Your task to perform on an android device: empty trash in google photos Image 0: 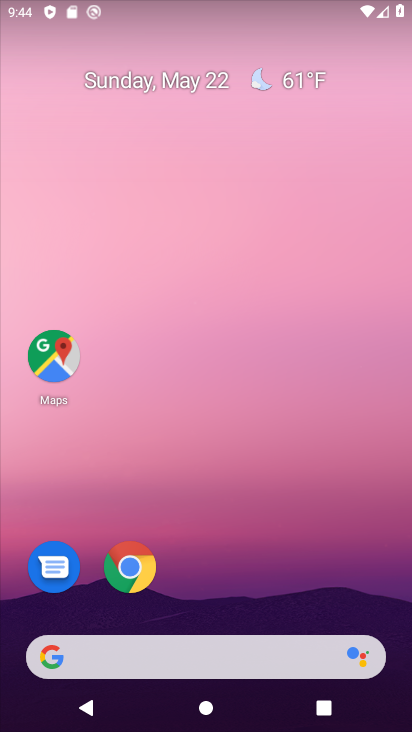
Step 0: drag from (217, 617) to (129, 53)
Your task to perform on an android device: empty trash in google photos Image 1: 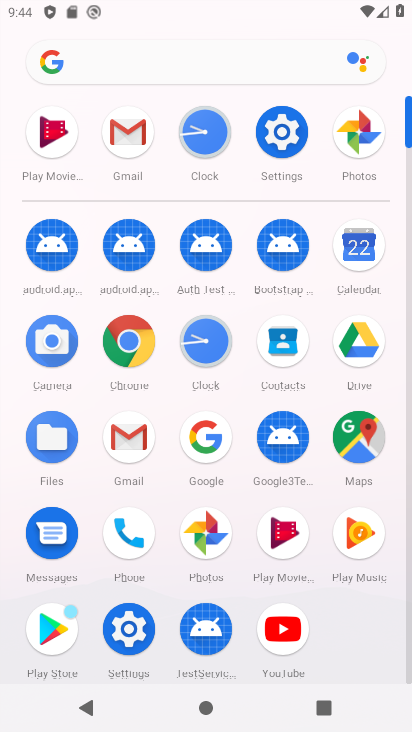
Step 1: click (213, 523)
Your task to perform on an android device: empty trash in google photos Image 2: 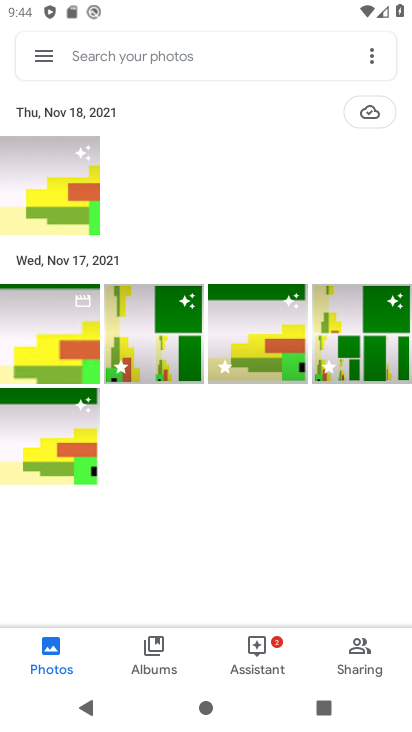
Step 2: click (42, 55)
Your task to perform on an android device: empty trash in google photos Image 3: 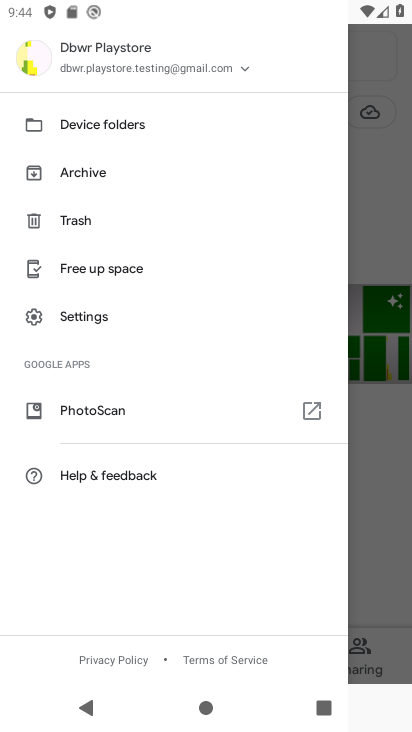
Step 3: click (101, 228)
Your task to perform on an android device: empty trash in google photos Image 4: 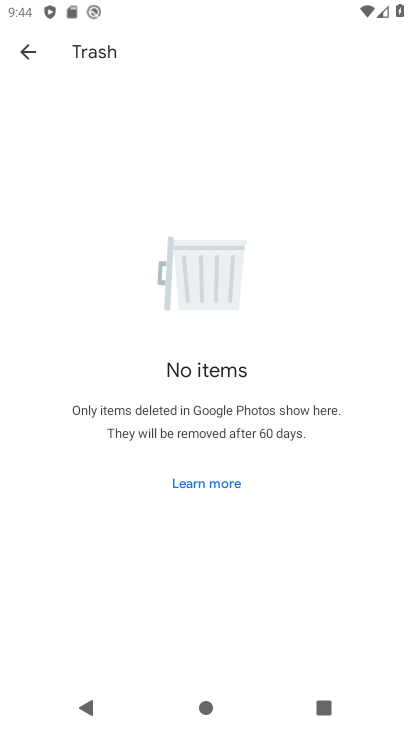
Step 4: task complete